Your task to perform on an android device: toggle airplane mode Image 0: 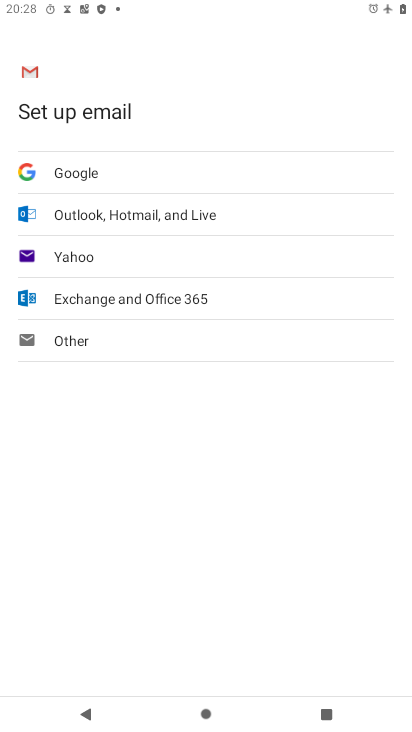
Step 0: press home button
Your task to perform on an android device: toggle airplane mode Image 1: 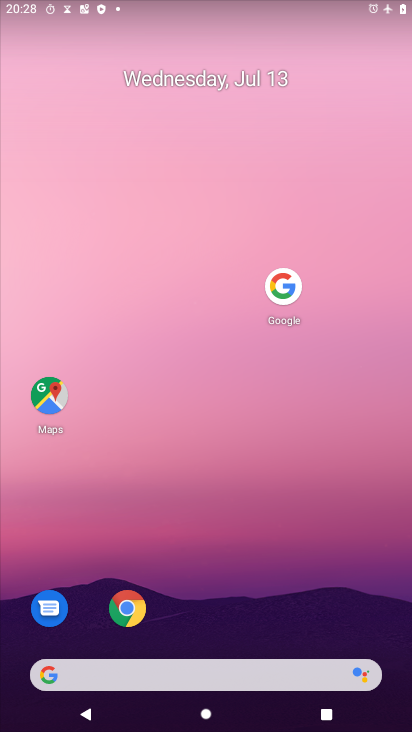
Step 1: drag from (232, 653) to (212, 64)
Your task to perform on an android device: toggle airplane mode Image 2: 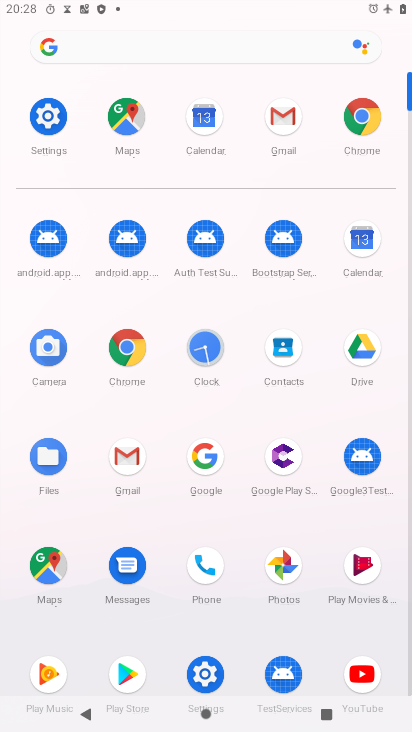
Step 2: click (47, 121)
Your task to perform on an android device: toggle airplane mode Image 3: 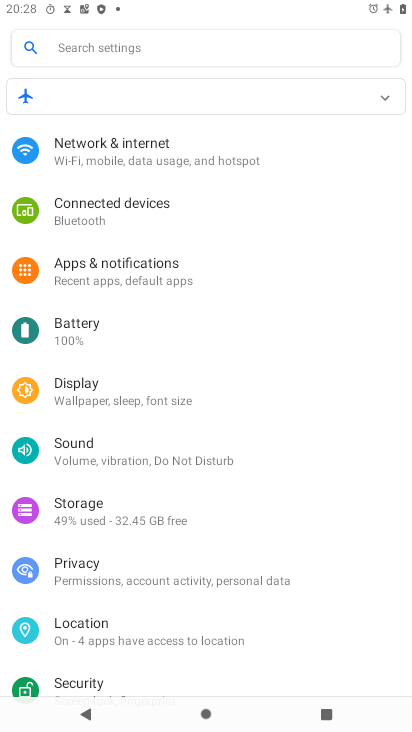
Step 3: click (84, 154)
Your task to perform on an android device: toggle airplane mode Image 4: 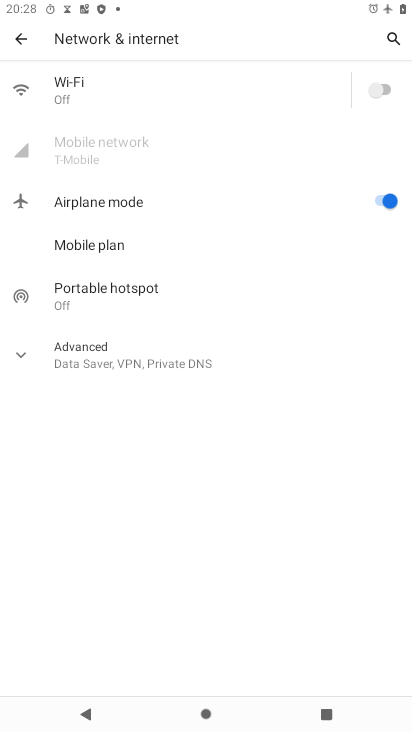
Step 4: click (378, 200)
Your task to perform on an android device: toggle airplane mode Image 5: 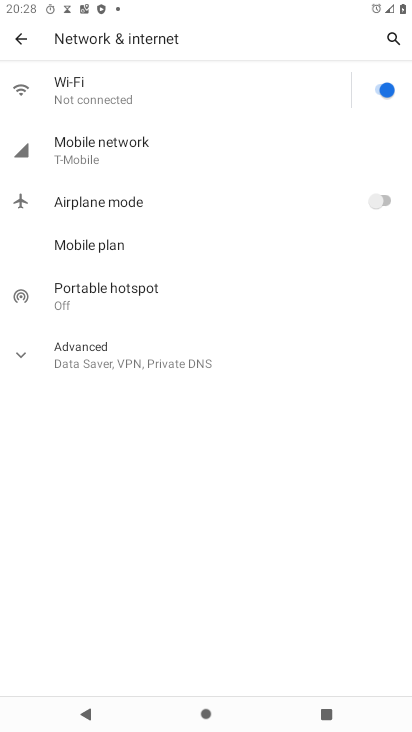
Step 5: task complete